Your task to perform on an android device: Open Chrome and go to the settings page Image 0: 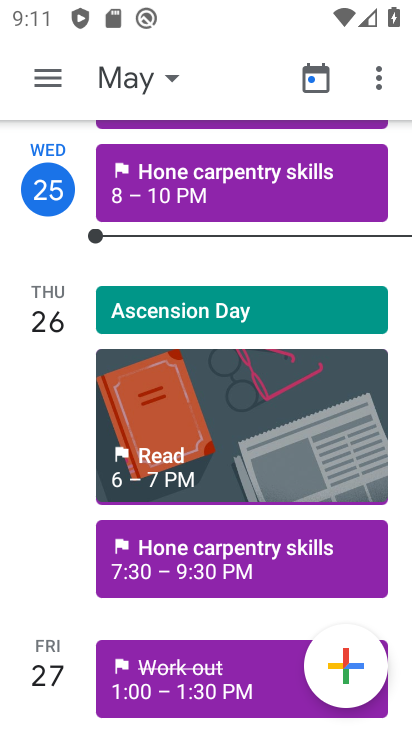
Step 0: press home button
Your task to perform on an android device: Open Chrome and go to the settings page Image 1: 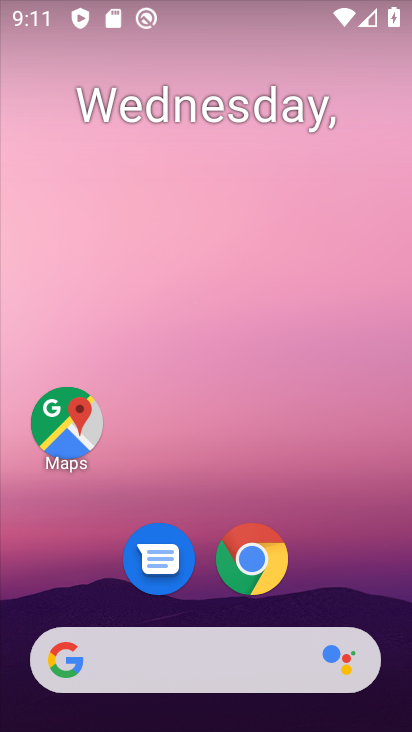
Step 1: click (268, 561)
Your task to perform on an android device: Open Chrome and go to the settings page Image 2: 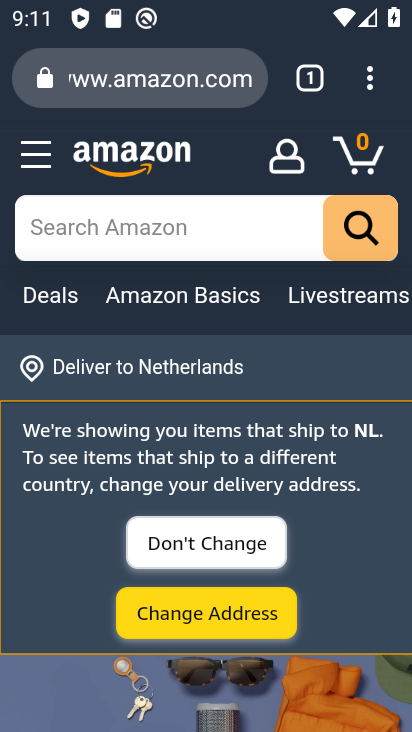
Step 2: click (378, 77)
Your task to perform on an android device: Open Chrome and go to the settings page Image 3: 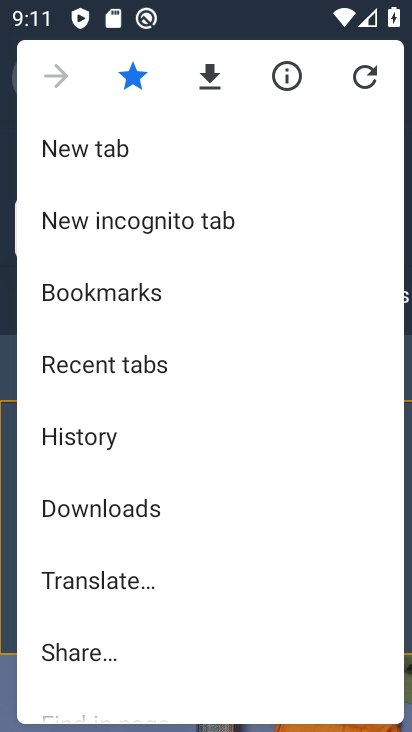
Step 3: drag from (180, 609) to (177, 203)
Your task to perform on an android device: Open Chrome and go to the settings page Image 4: 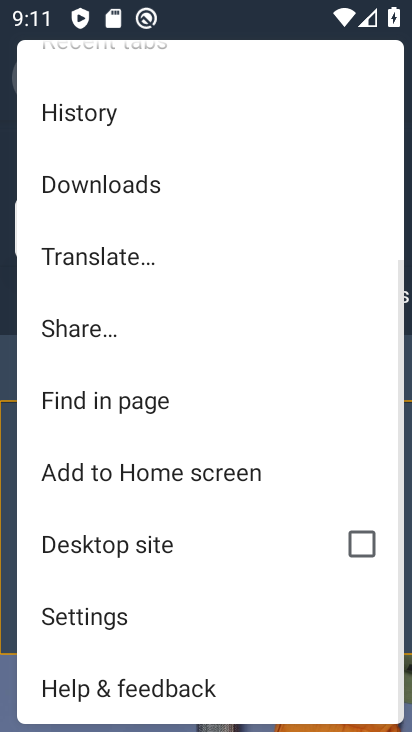
Step 4: click (100, 631)
Your task to perform on an android device: Open Chrome and go to the settings page Image 5: 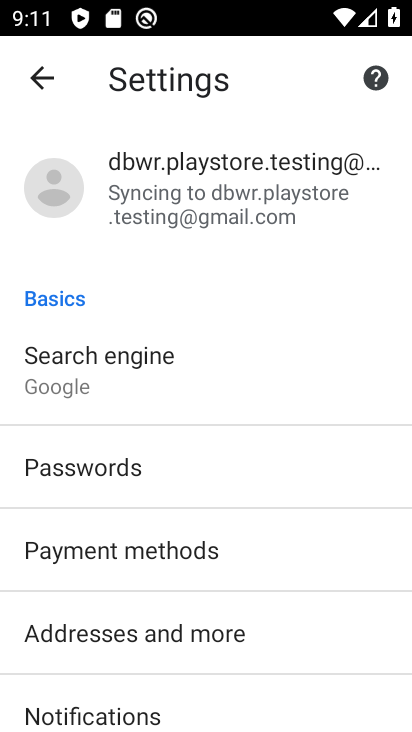
Step 5: task complete